Your task to perform on an android device: turn on wifi Image 0: 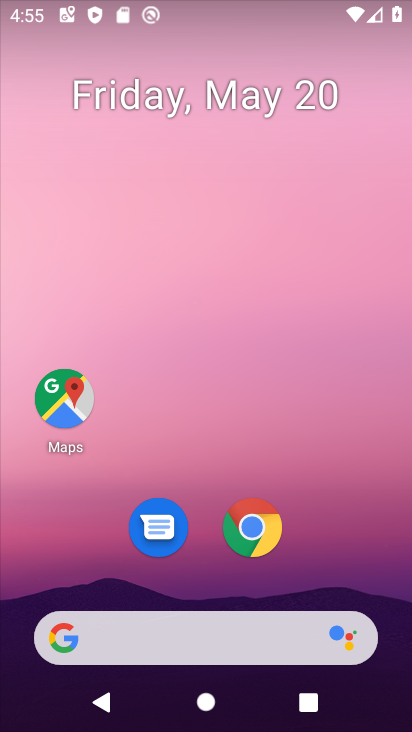
Step 0: drag from (178, 606) to (174, 180)
Your task to perform on an android device: turn on wifi Image 1: 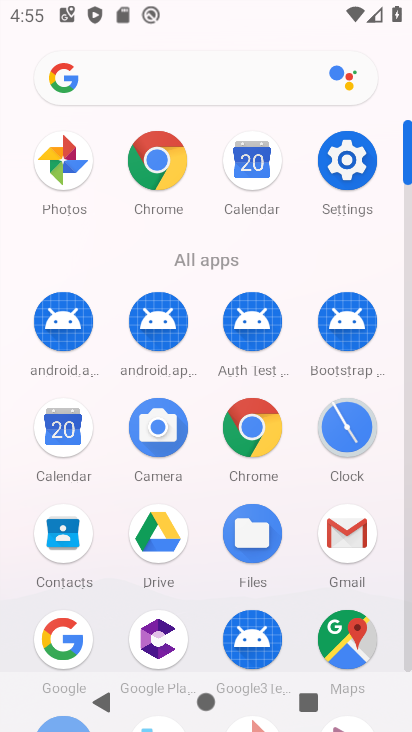
Step 1: click (352, 171)
Your task to perform on an android device: turn on wifi Image 2: 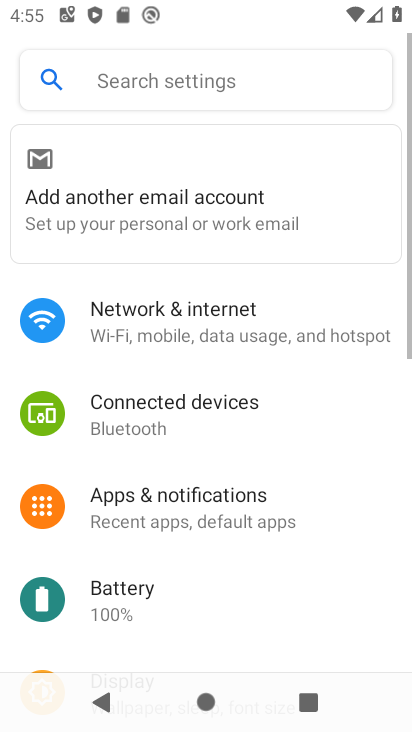
Step 2: click (171, 314)
Your task to perform on an android device: turn on wifi Image 3: 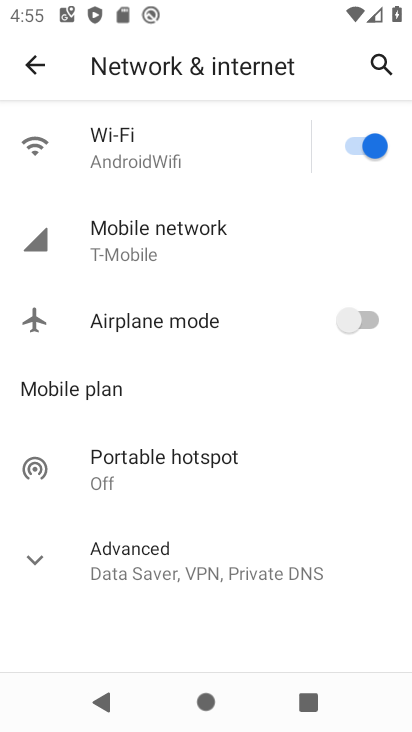
Step 3: task complete